Your task to perform on an android device: Go to display settings Image 0: 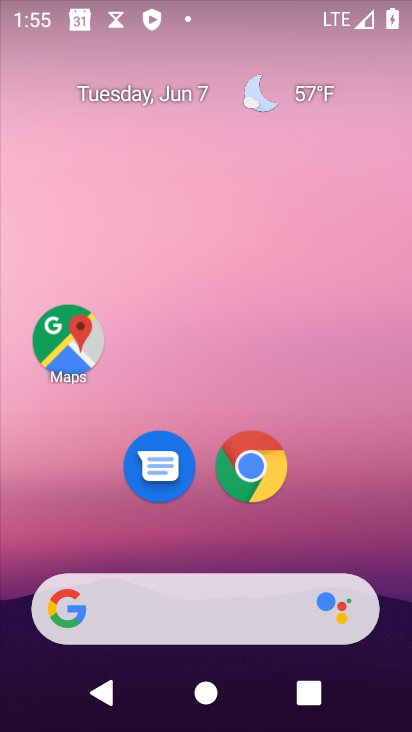
Step 0: drag from (244, 562) to (266, 23)
Your task to perform on an android device: Go to display settings Image 1: 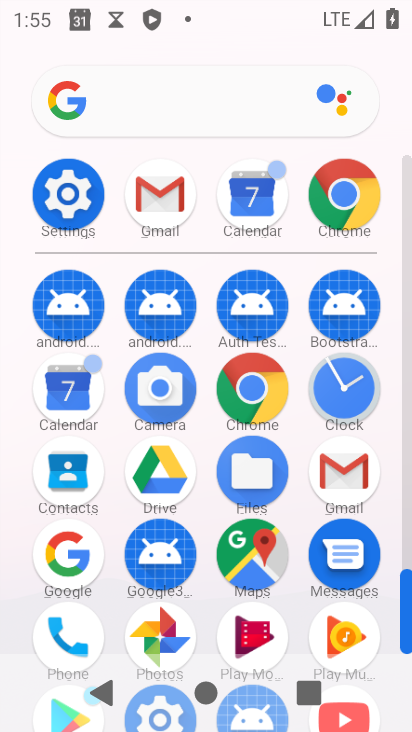
Step 1: click (68, 201)
Your task to perform on an android device: Go to display settings Image 2: 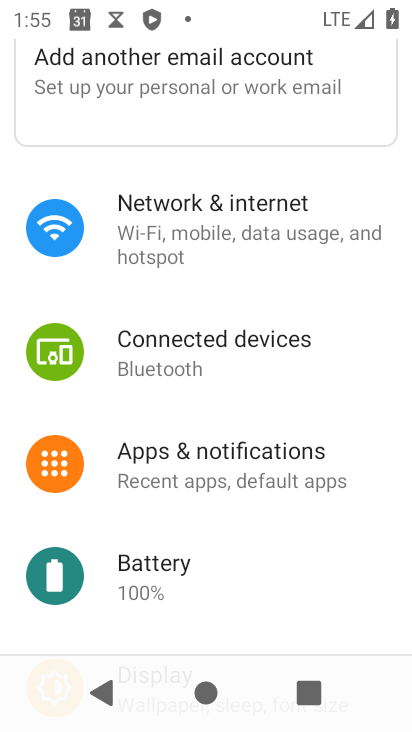
Step 2: drag from (213, 557) to (280, 30)
Your task to perform on an android device: Go to display settings Image 3: 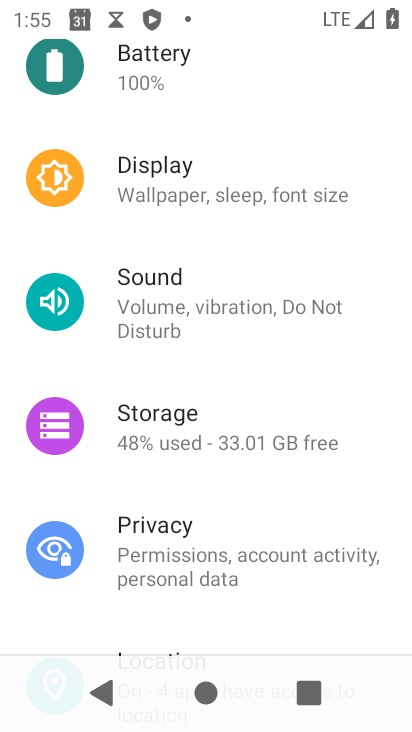
Step 3: click (160, 184)
Your task to perform on an android device: Go to display settings Image 4: 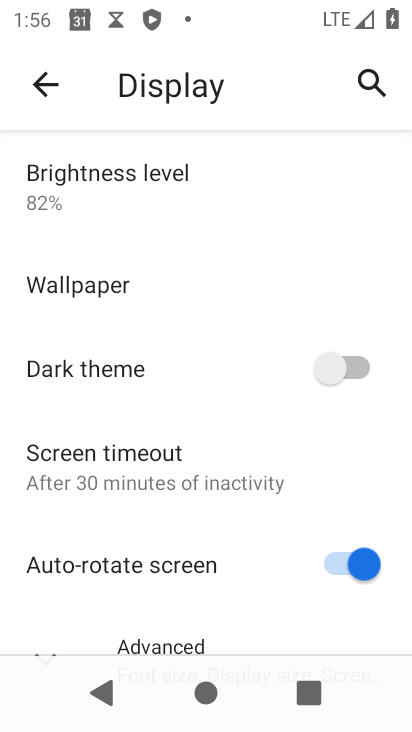
Step 4: task complete